Your task to perform on an android device: turn off notifications in google photos Image 0: 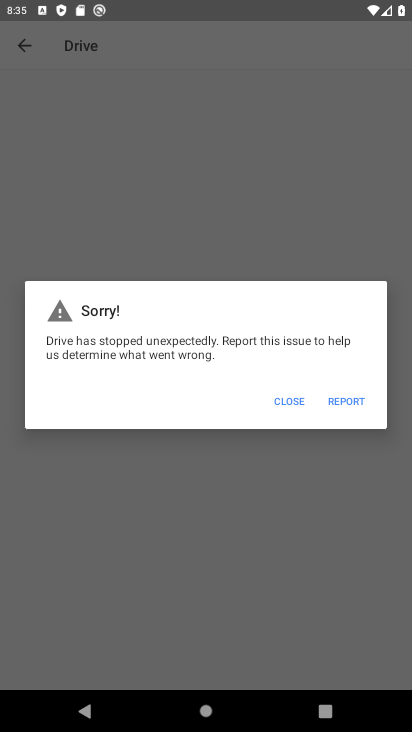
Step 0: press home button
Your task to perform on an android device: turn off notifications in google photos Image 1: 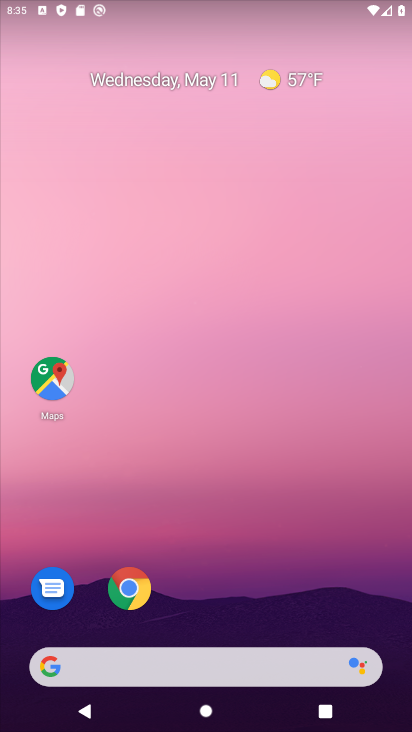
Step 1: drag from (248, 686) to (235, 6)
Your task to perform on an android device: turn off notifications in google photos Image 2: 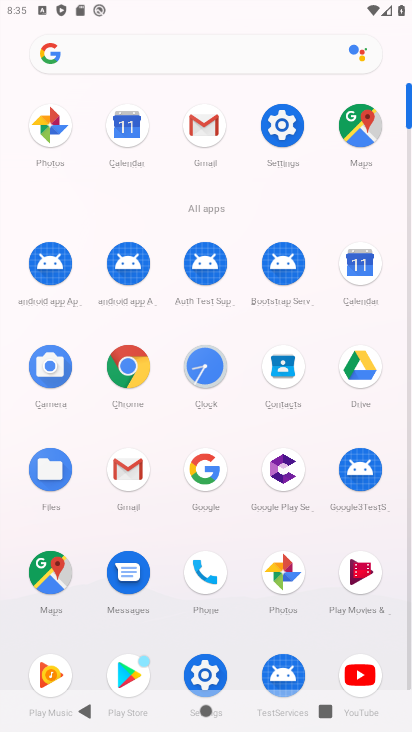
Step 2: click (266, 579)
Your task to perform on an android device: turn off notifications in google photos Image 3: 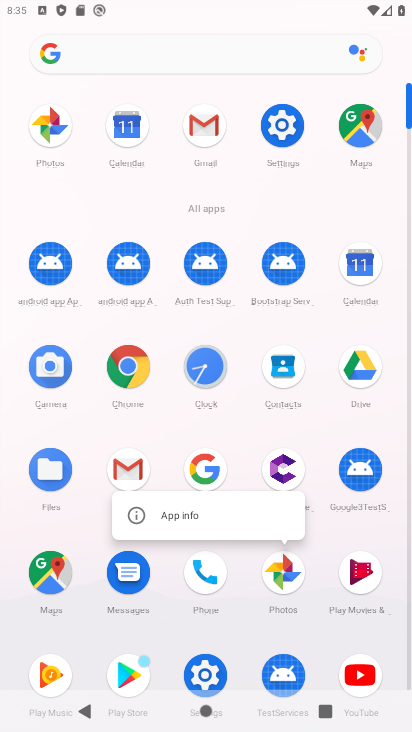
Step 3: click (198, 524)
Your task to perform on an android device: turn off notifications in google photos Image 4: 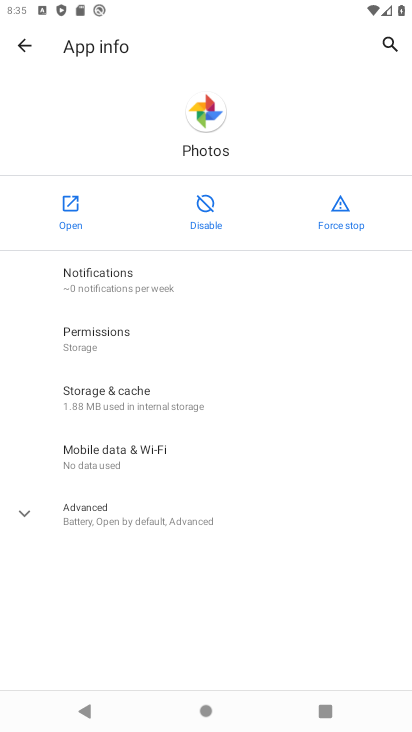
Step 4: click (119, 294)
Your task to perform on an android device: turn off notifications in google photos Image 5: 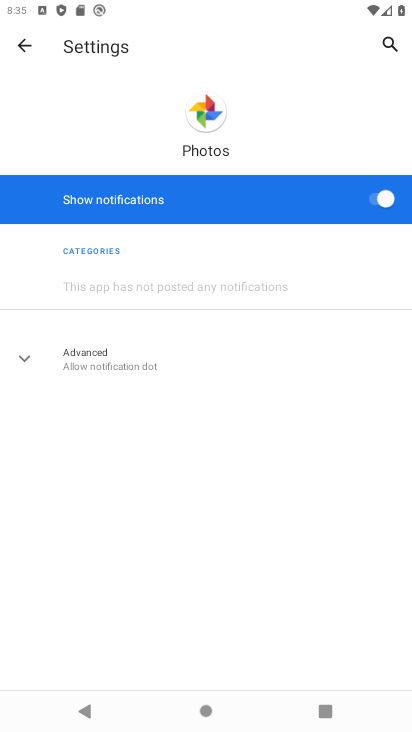
Step 5: click (375, 210)
Your task to perform on an android device: turn off notifications in google photos Image 6: 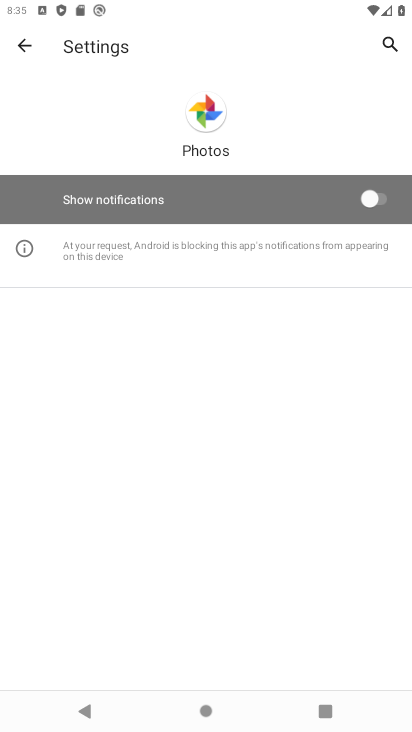
Step 6: task complete